Your task to perform on an android device: Go to sound settings Image 0: 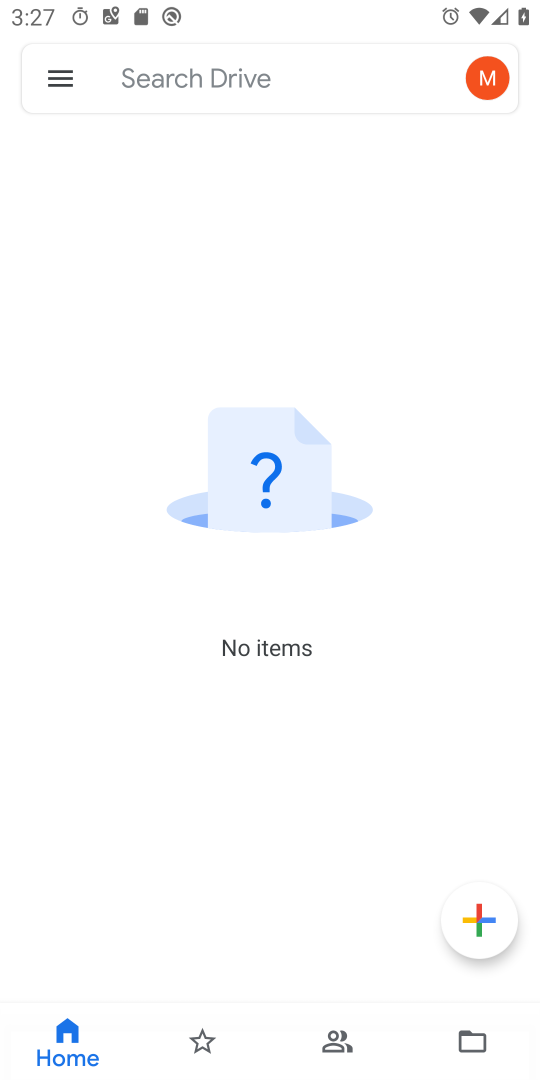
Step 0: press home button
Your task to perform on an android device: Go to sound settings Image 1: 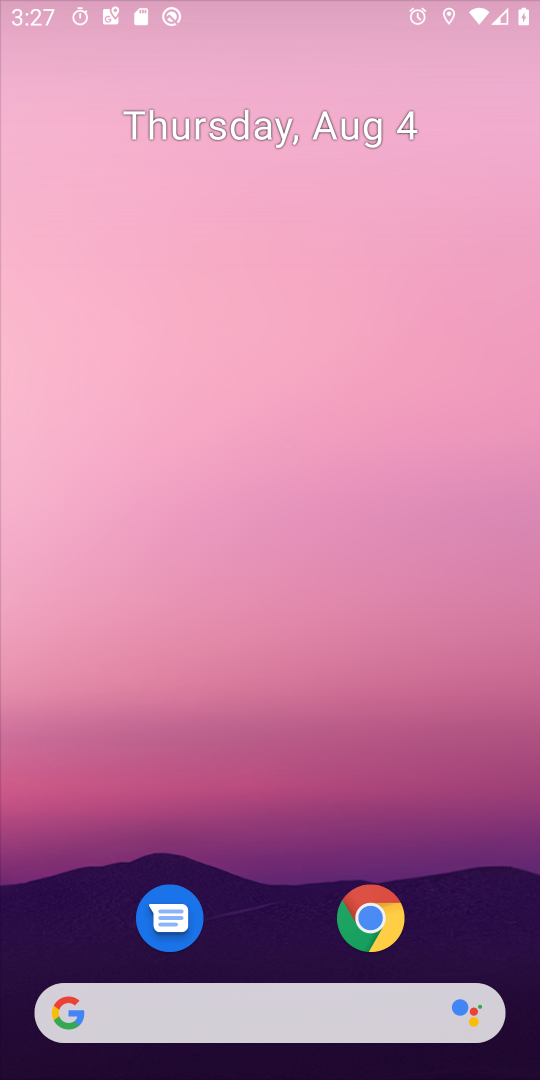
Step 1: drag from (269, 893) to (266, 368)
Your task to perform on an android device: Go to sound settings Image 2: 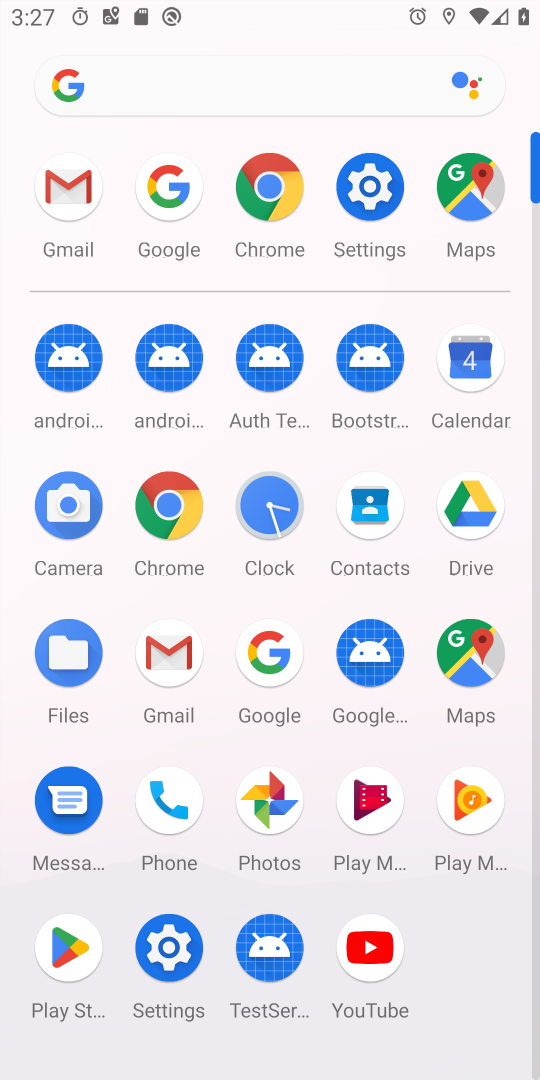
Step 2: click (356, 220)
Your task to perform on an android device: Go to sound settings Image 3: 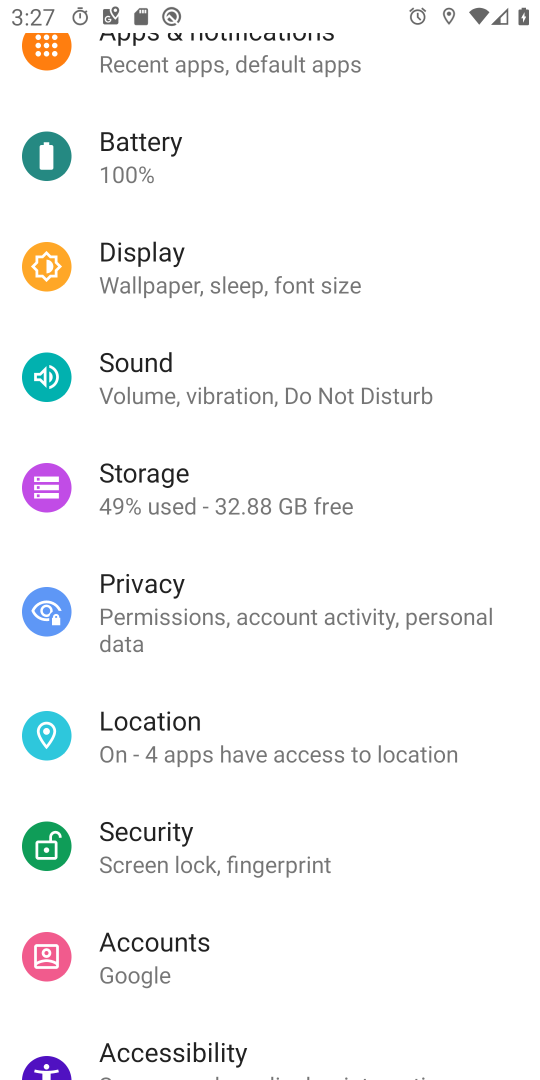
Step 3: click (231, 412)
Your task to perform on an android device: Go to sound settings Image 4: 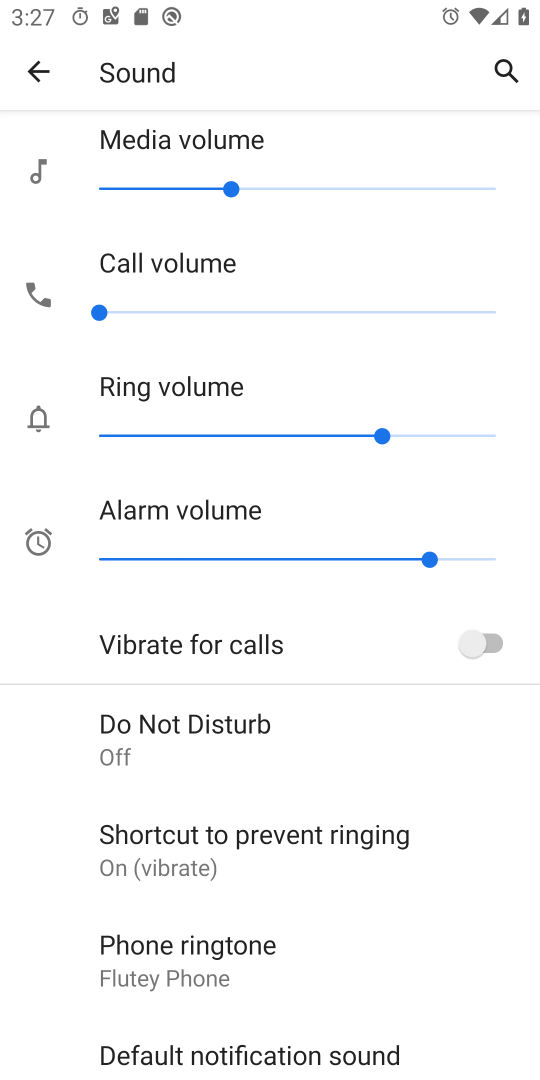
Step 4: task complete